Your task to perform on an android device: Search for pizza restaurants on Maps Image 0: 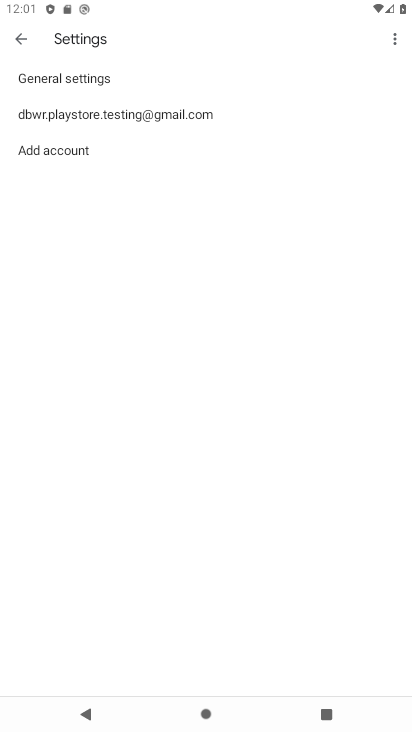
Step 0: press home button
Your task to perform on an android device: Search for pizza restaurants on Maps Image 1: 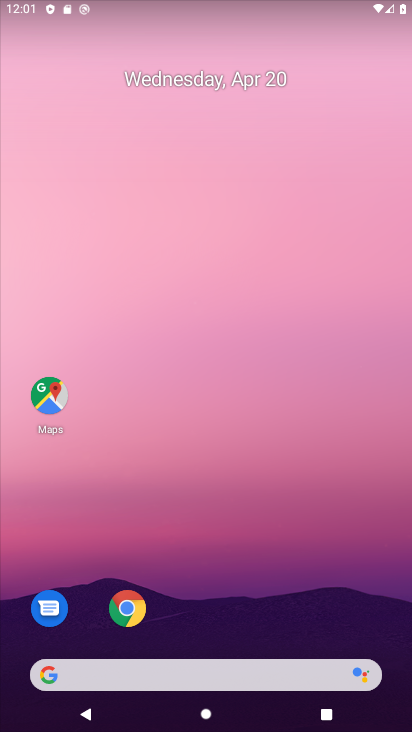
Step 1: click (45, 395)
Your task to perform on an android device: Search for pizza restaurants on Maps Image 2: 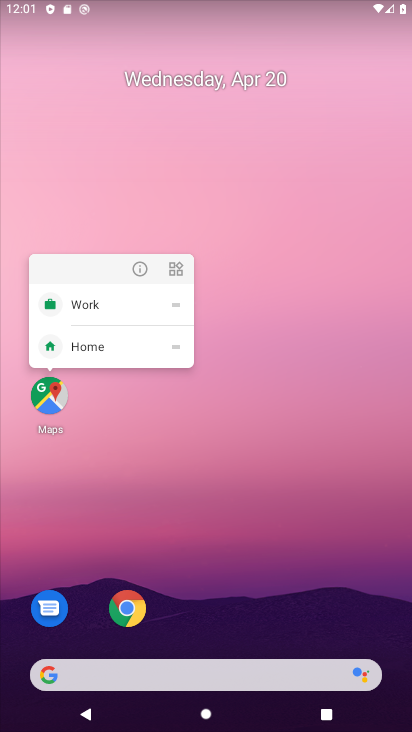
Step 2: click (53, 389)
Your task to perform on an android device: Search for pizza restaurants on Maps Image 3: 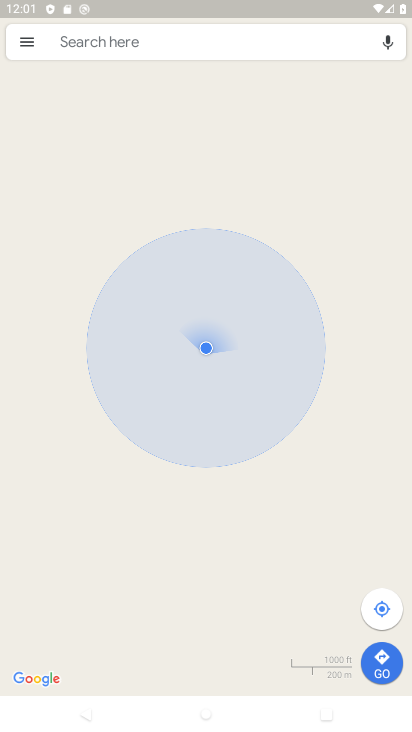
Step 3: click (207, 41)
Your task to perform on an android device: Search for pizza restaurants on Maps Image 4: 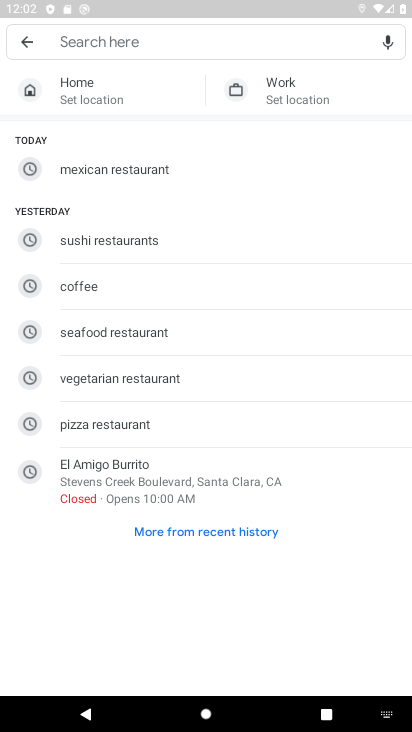
Step 4: click (143, 420)
Your task to perform on an android device: Search for pizza restaurants on Maps Image 5: 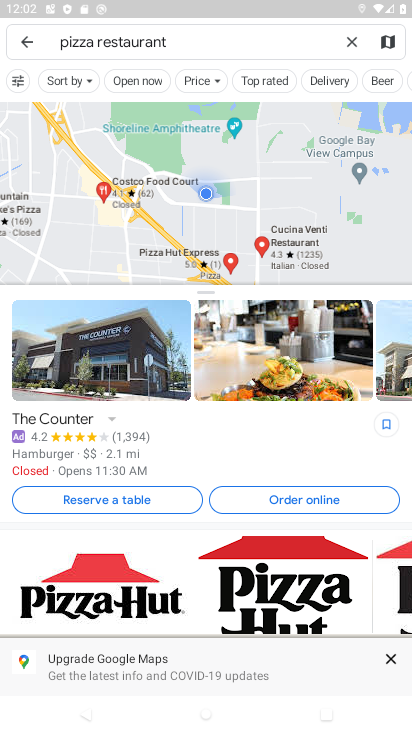
Step 5: task complete